Your task to perform on an android device: Go to calendar. Show me events next week Image 0: 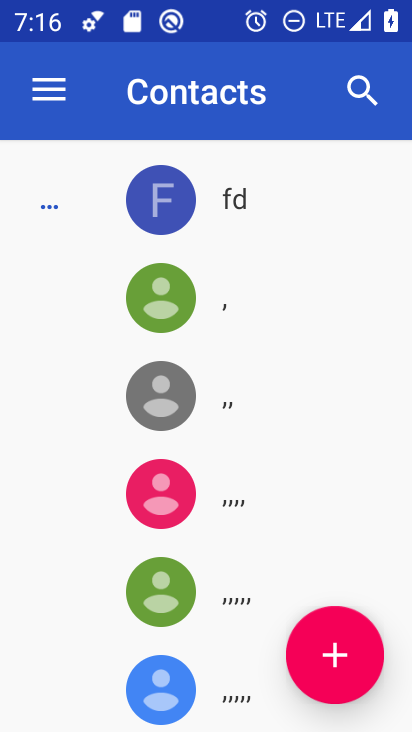
Step 0: press home button
Your task to perform on an android device: Go to calendar. Show me events next week Image 1: 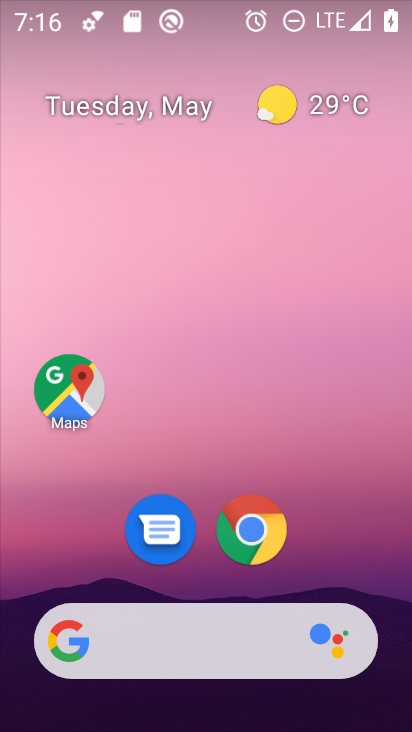
Step 1: click (393, 581)
Your task to perform on an android device: Go to calendar. Show me events next week Image 2: 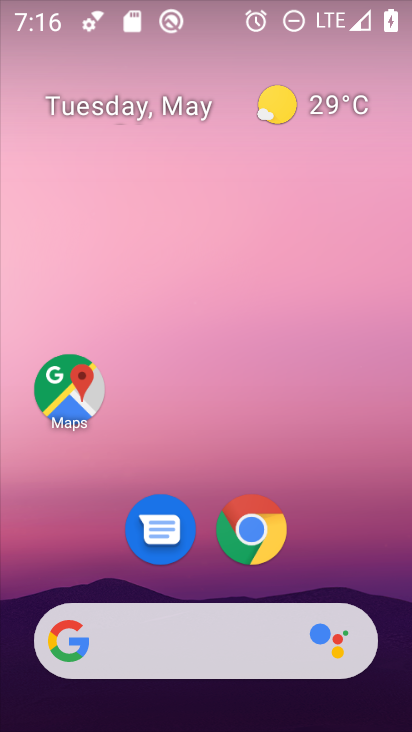
Step 2: drag from (396, 611) to (152, 21)
Your task to perform on an android device: Go to calendar. Show me events next week Image 3: 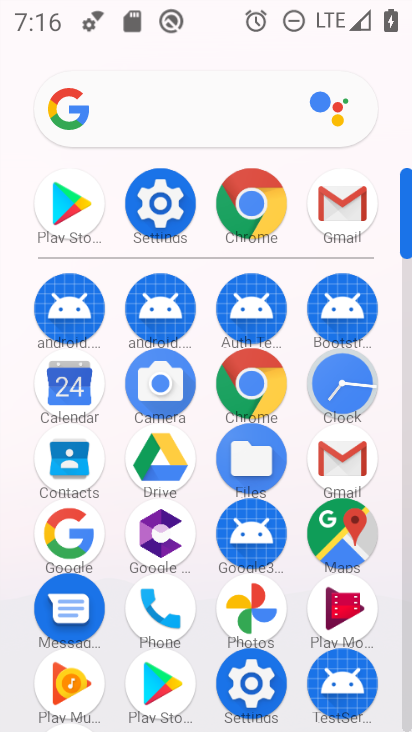
Step 3: click (73, 382)
Your task to perform on an android device: Go to calendar. Show me events next week Image 4: 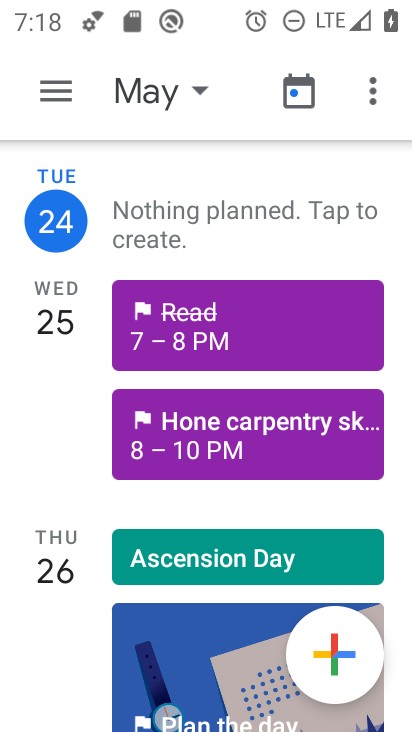
Step 4: task complete